Your task to perform on an android device: snooze an email in the gmail app Image 0: 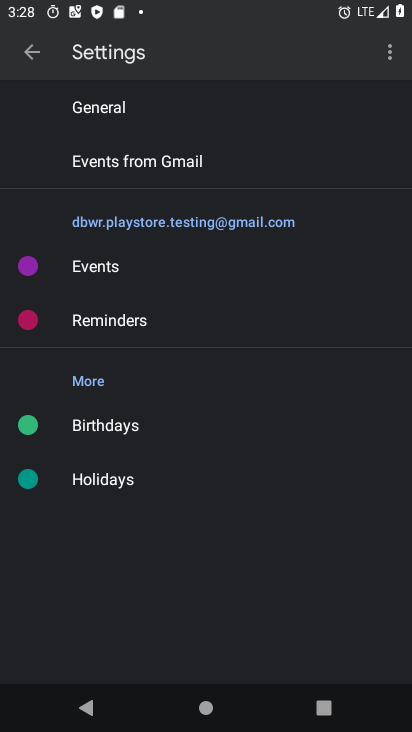
Step 0: press home button
Your task to perform on an android device: snooze an email in the gmail app Image 1: 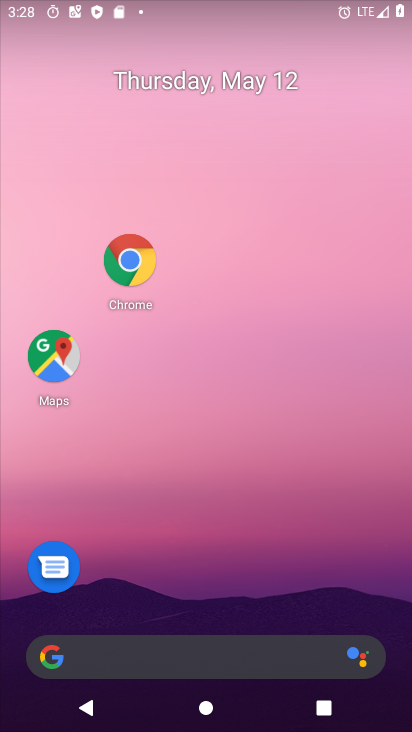
Step 1: drag from (163, 628) to (206, 297)
Your task to perform on an android device: snooze an email in the gmail app Image 2: 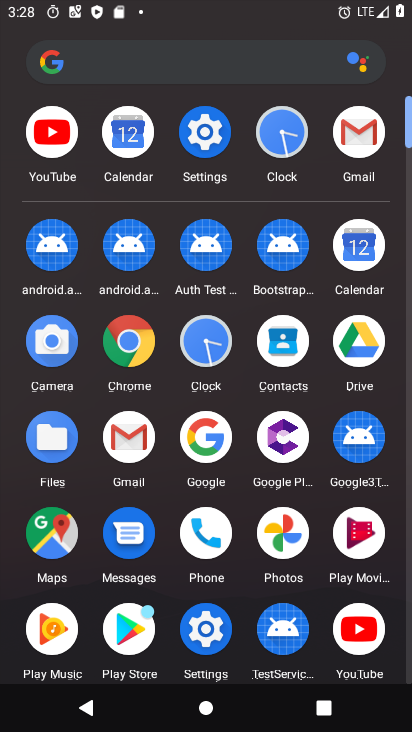
Step 2: click (135, 438)
Your task to perform on an android device: snooze an email in the gmail app Image 3: 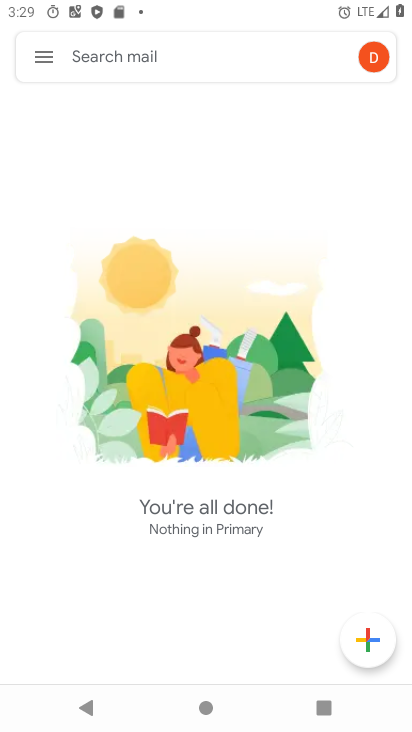
Step 3: click (41, 57)
Your task to perform on an android device: snooze an email in the gmail app Image 4: 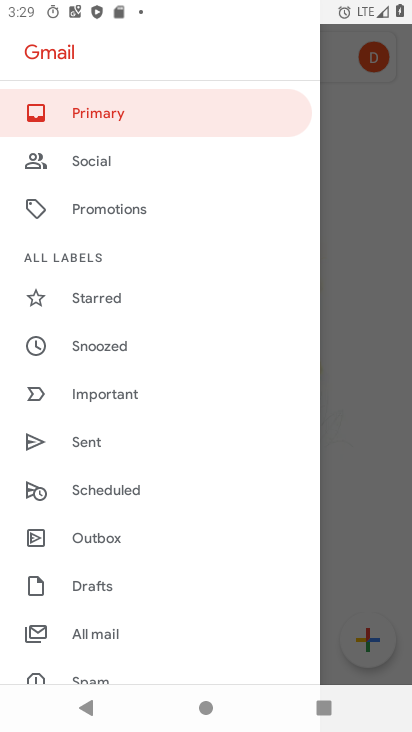
Step 4: click (116, 341)
Your task to perform on an android device: snooze an email in the gmail app Image 5: 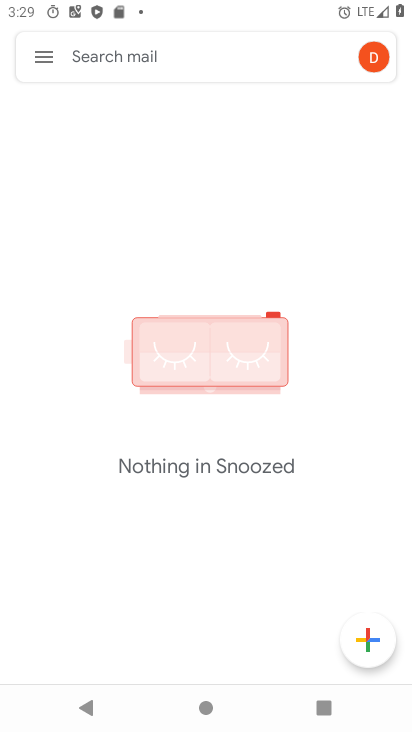
Step 5: task complete